Your task to perform on an android device: Open Google Chrome and click the shortcut for Amazon.com Image 0: 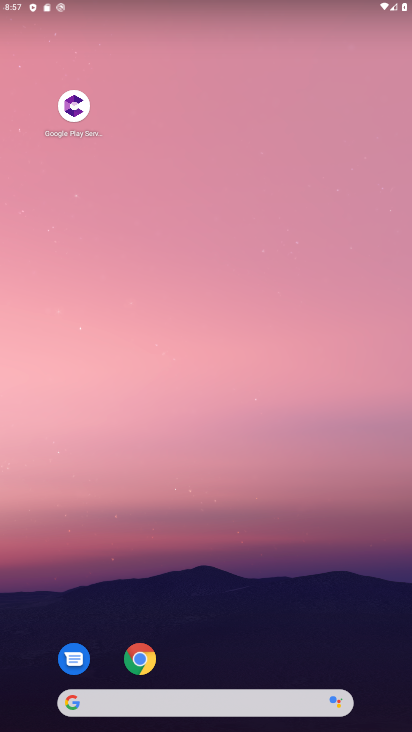
Step 0: drag from (188, 565) to (277, 134)
Your task to perform on an android device: Open Google Chrome and click the shortcut for Amazon.com Image 1: 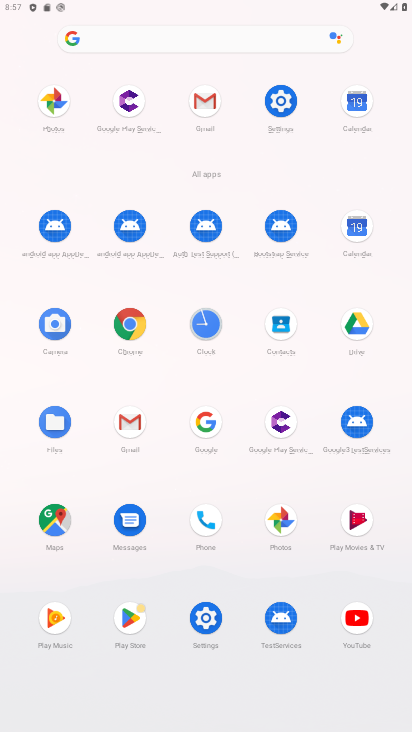
Step 1: click (133, 330)
Your task to perform on an android device: Open Google Chrome and click the shortcut for Amazon.com Image 2: 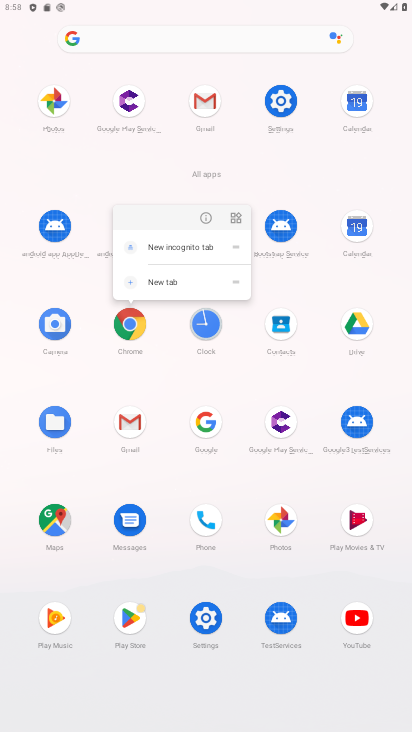
Step 2: click (200, 220)
Your task to perform on an android device: Open Google Chrome and click the shortcut for Amazon.com Image 3: 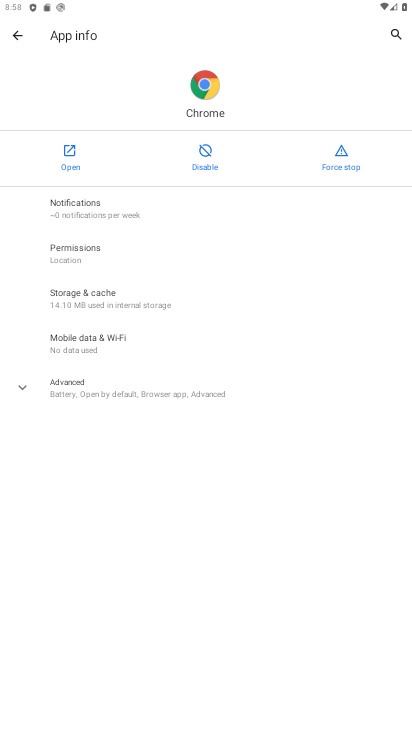
Step 3: drag from (252, 474) to (344, 105)
Your task to perform on an android device: Open Google Chrome and click the shortcut for Amazon.com Image 4: 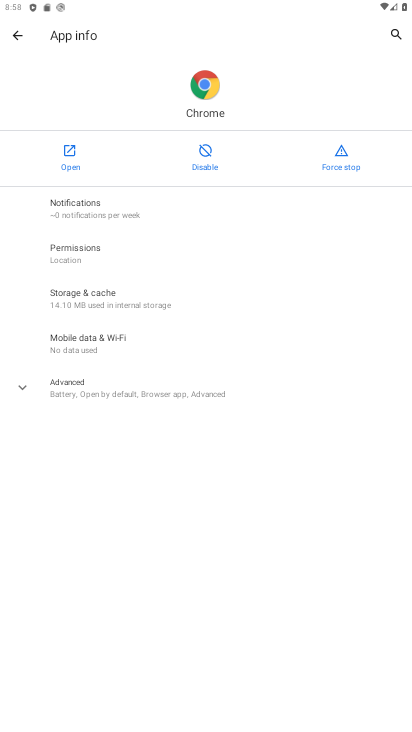
Step 4: click (68, 147)
Your task to perform on an android device: Open Google Chrome and click the shortcut for Amazon.com Image 5: 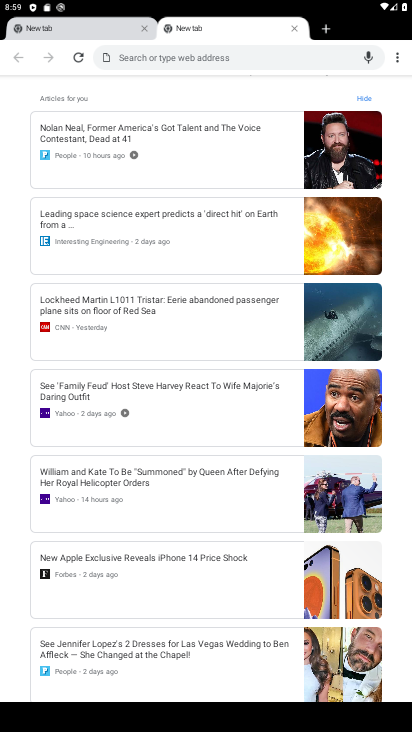
Step 5: drag from (124, 616) to (159, 299)
Your task to perform on an android device: Open Google Chrome and click the shortcut for Amazon.com Image 6: 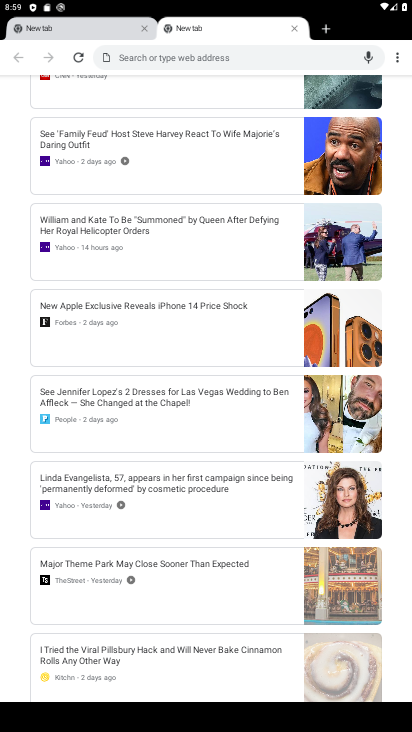
Step 6: drag from (122, 487) to (112, 726)
Your task to perform on an android device: Open Google Chrome and click the shortcut for Amazon.com Image 7: 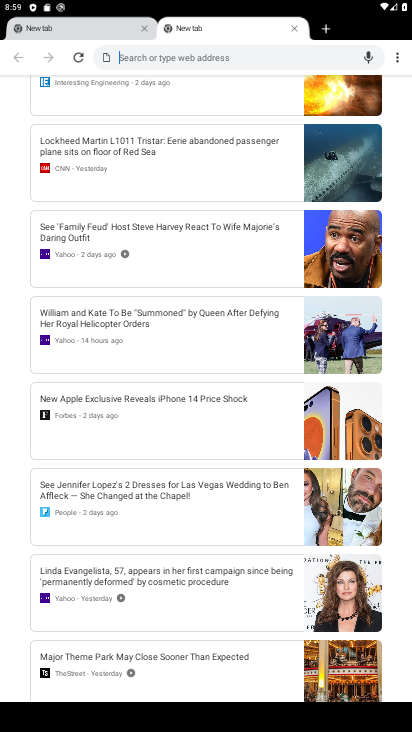
Step 7: drag from (224, 274) to (307, 731)
Your task to perform on an android device: Open Google Chrome and click the shortcut for Amazon.com Image 8: 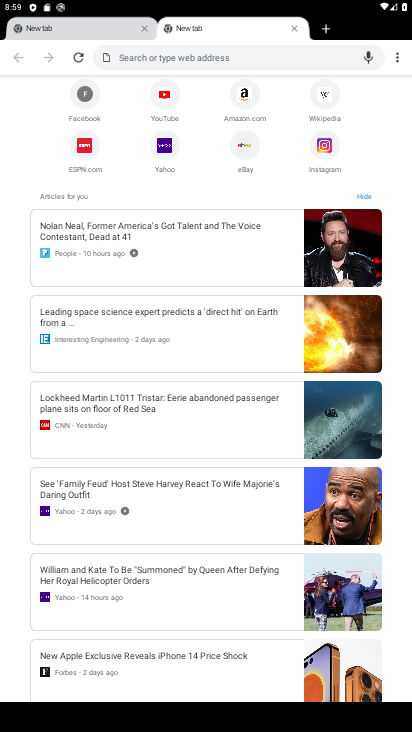
Step 8: drag from (323, 272) to (343, 219)
Your task to perform on an android device: Open Google Chrome and click the shortcut for Amazon.com Image 9: 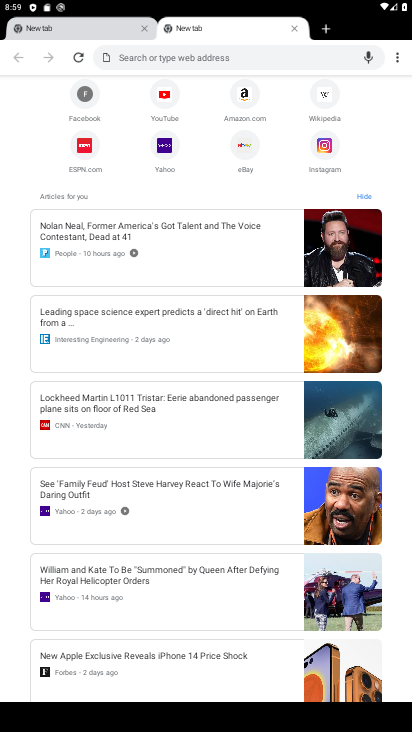
Step 9: drag from (311, 314) to (312, 729)
Your task to perform on an android device: Open Google Chrome and click the shortcut for Amazon.com Image 10: 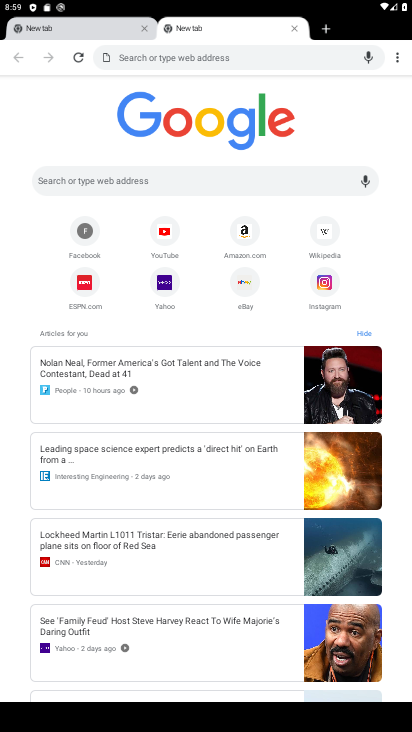
Step 10: click (231, 227)
Your task to perform on an android device: Open Google Chrome and click the shortcut for Amazon.com Image 11: 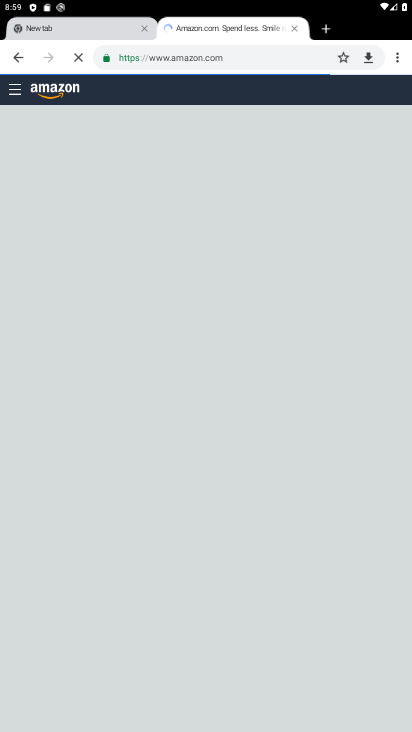
Step 11: click (250, 246)
Your task to perform on an android device: Open Google Chrome and click the shortcut for Amazon.com Image 12: 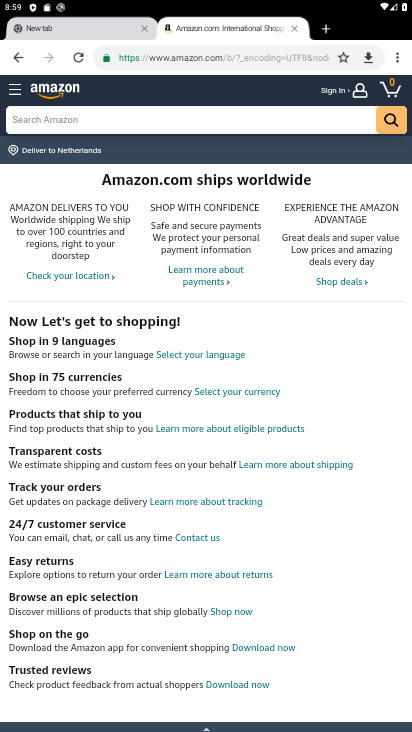
Step 12: task complete